Your task to perform on an android device: set an alarm Image 0: 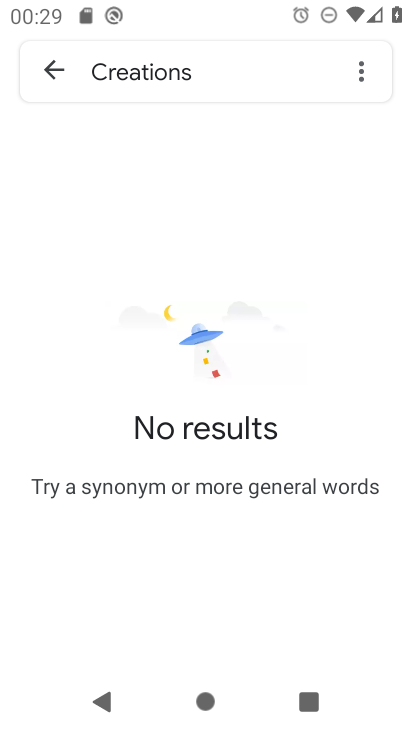
Step 0: press home button
Your task to perform on an android device: set an alarm Image 1: 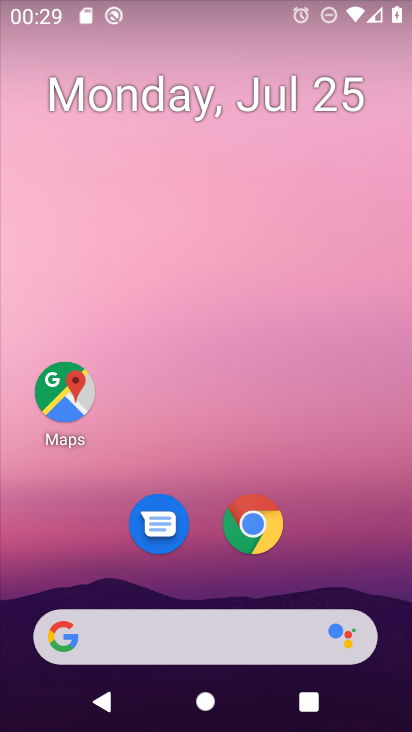
Step 1: drag from (191, 626) to (350, 80)
Your task to perform on an android device: set an alarm Image 2: 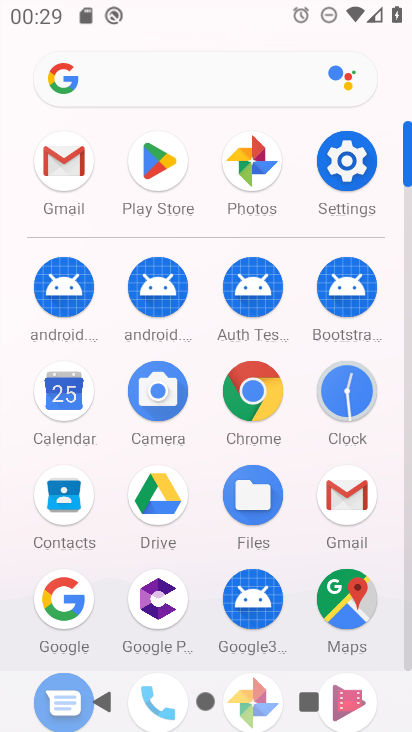
Step 2: click (338, 392)
Your task to perform on an android device: set an alarm Image 3: 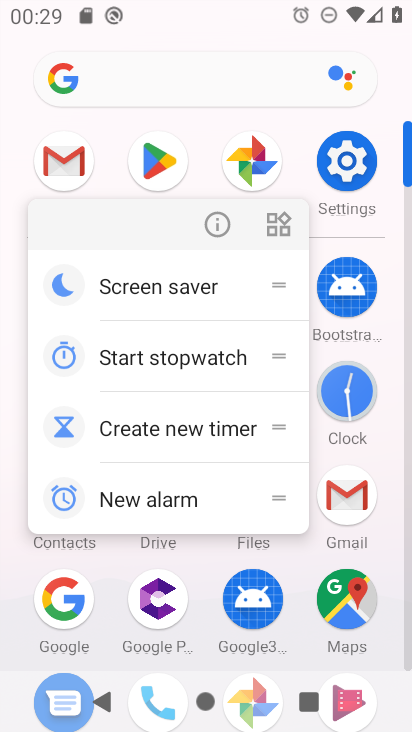
Step 3: click (348, 389)
Your task to perform on an android device: set an alarm Image 4: 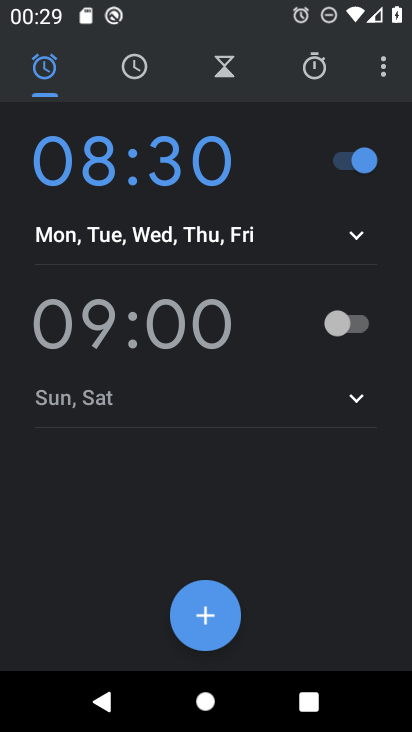
Step 4: click (352, 319)
Your task to perform on an android device: set an alarm Image 5: 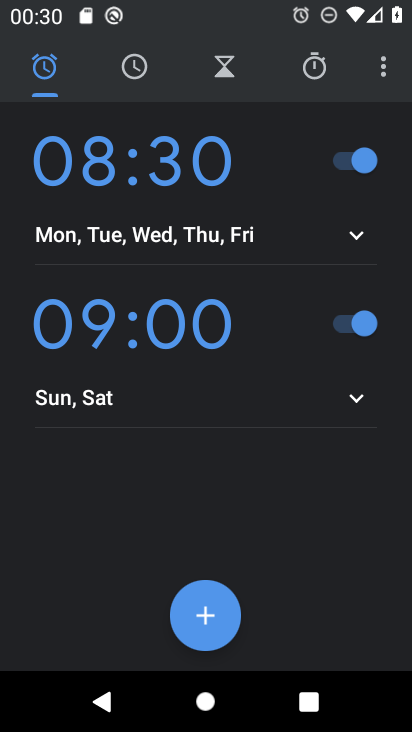
Step 5: task complete